Your task to perform on an android device: toggle data saver in the chrome app Image 0: 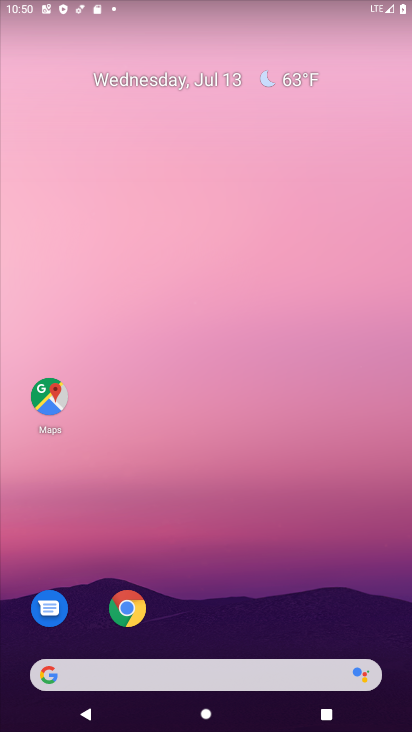
Step 0: drag from (197, 566) to (302, 111)
Your task to perform on an android device: toggle data saver in the chrome app Image 1: 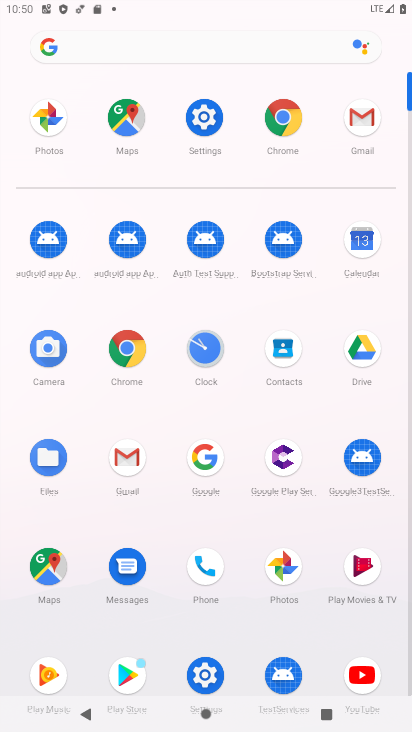
Step 1: click (130, 332)
Your task to perform on an android device: toggle data saver in the chrome app Image 2: 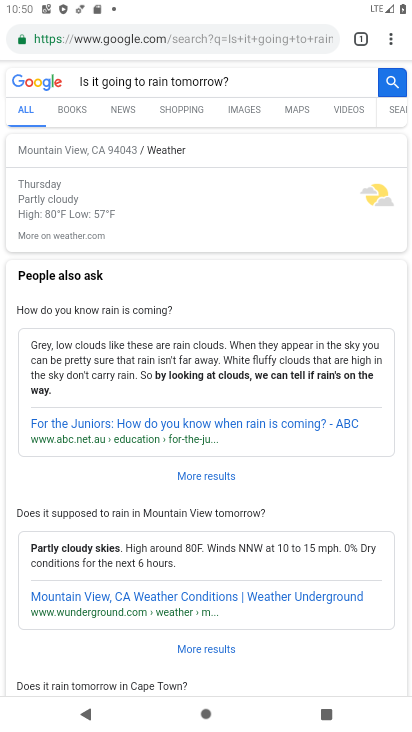
Step 2: drag from (391, 36) to (282, 434)
Your task to perform on an android device: toggle data saver in the chrome app Image 3: 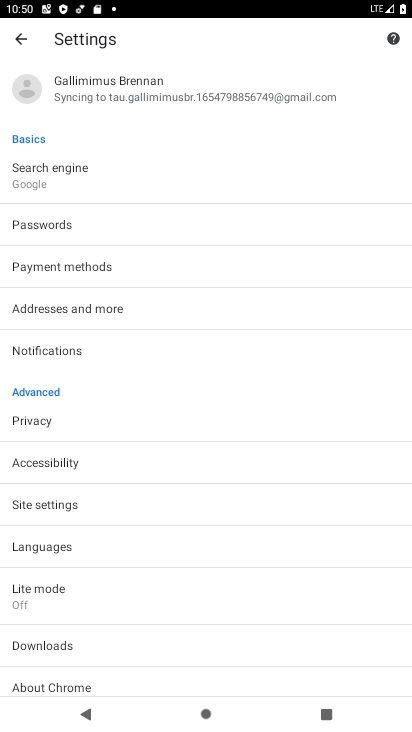
Step 3: drag from (151, 585) to (168, 339)
Your task to perform on an android device: toggle data saver in the chrome app Image 4: 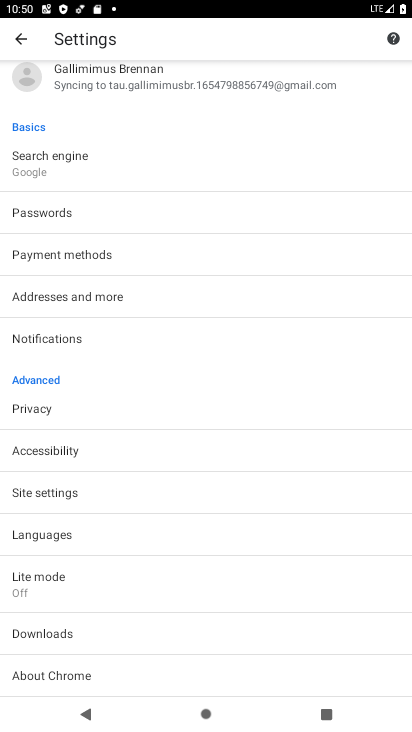
Step 4: click (65, 577)
Your task to perform on an android device: toggle data saver in the chrome app Image 5: 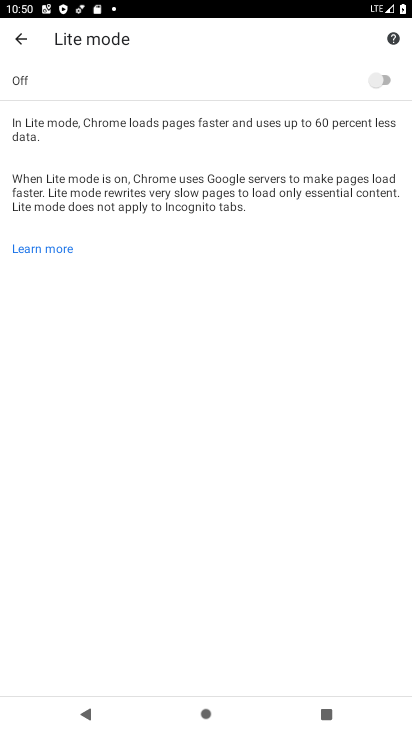
Step 5: click (353, 85)
Your task to perform on an android device: toggle data saver in the chrome app Image 6: 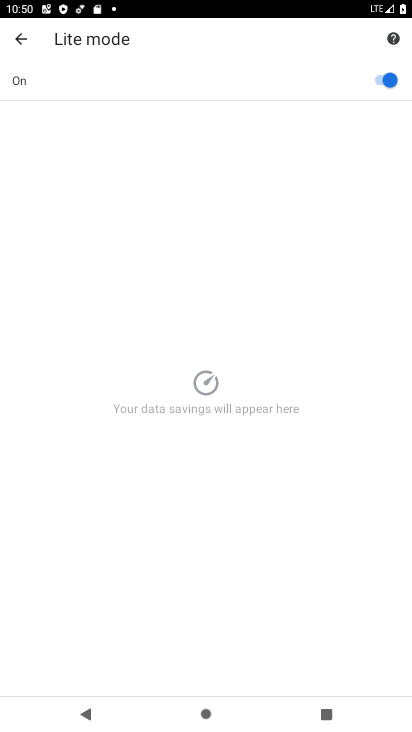
Step 6: task complete